Your task to perform on an android device: What's the weather going to be this weekend? Image 0: 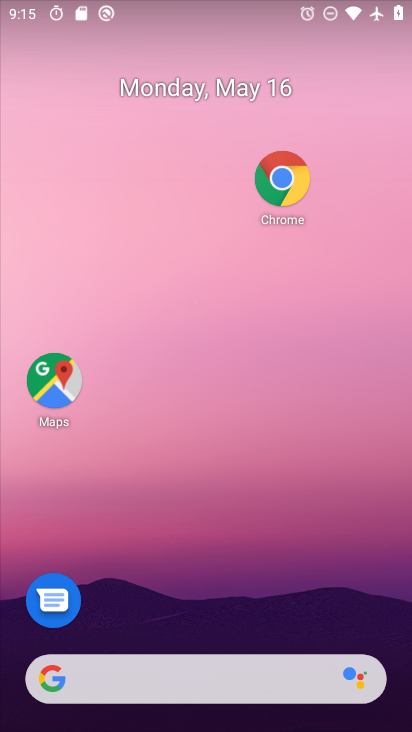
Step 0: click (48, 686)
Your task to perform on an android device: What's the weather going to be this weekend? Image 1: 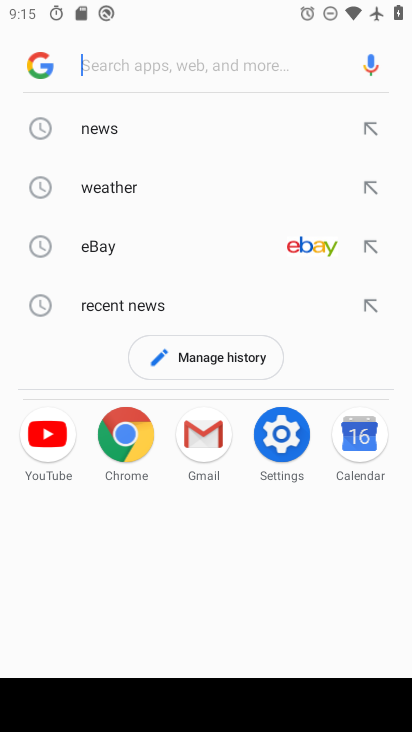
Step 1: click (112, 187)
Your task to perform on an android device: What's the weather going to be this weekend? Image 2: 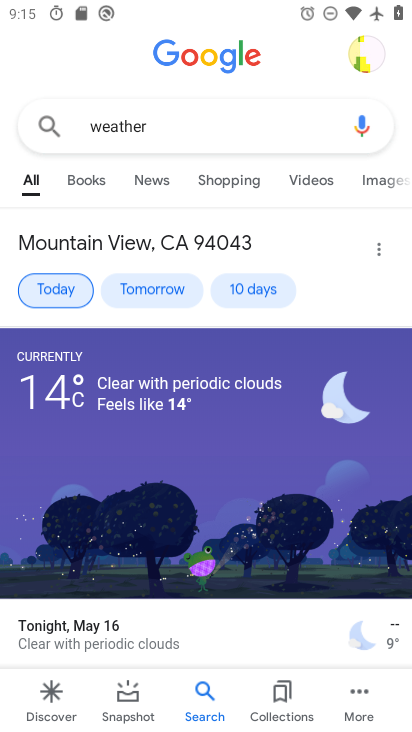
Step 2: click (234, 288)
Your task to perform on an android device: What's the weather going to be this weekend? Image 3: 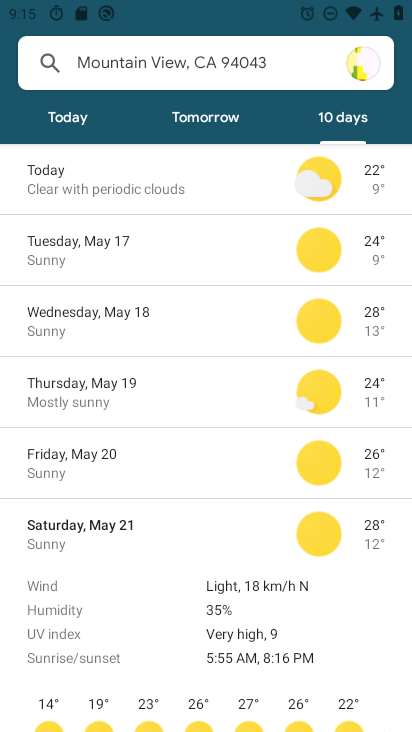
Step 3: task complete